Your task to perform on an android device: make emails show in primary in the gmail app Image 0: 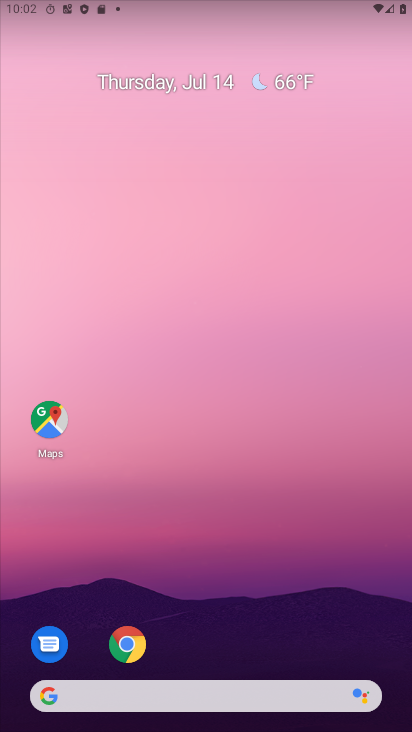
Step 0: drag from (249, 723) to (140, 93)
Your task to perform on an android device: make emails show in primary in the gmail app Image 1: 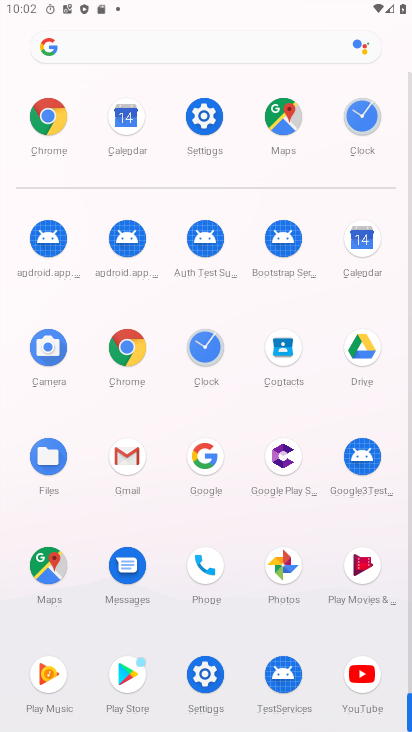
Step 1: click (124, 463)
Your task to perform on an android device: make emails show in primary in the gmail app Image 2: 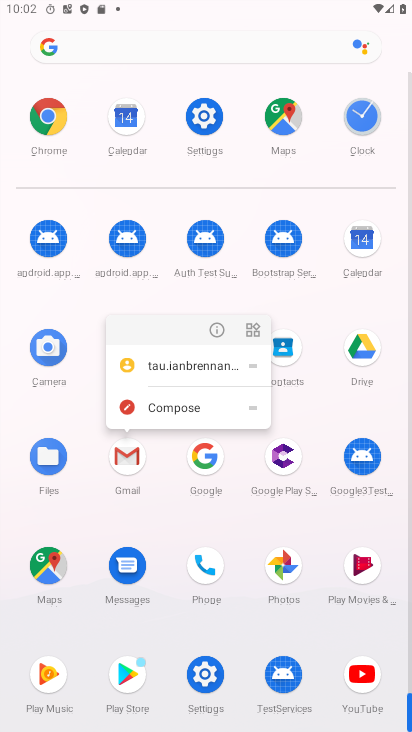
Step 2: click (134, 453)
Your task to perform on an android device: make emails show in primary in the gmail app Image 3: 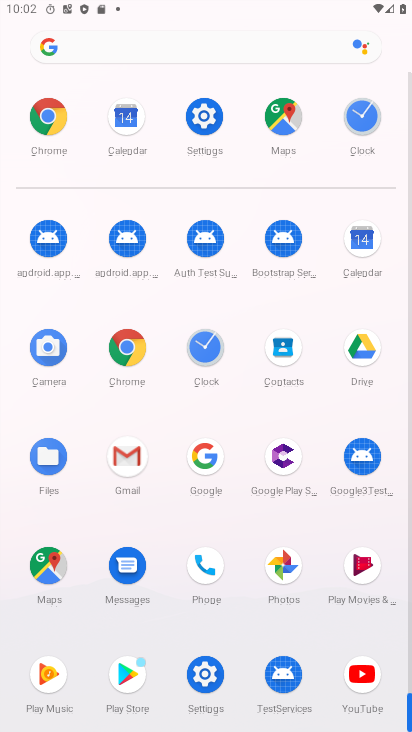
Step 3: click (134, 453)
Your task to perform on an android device: make emails show in primary in the gmail app Image 4: 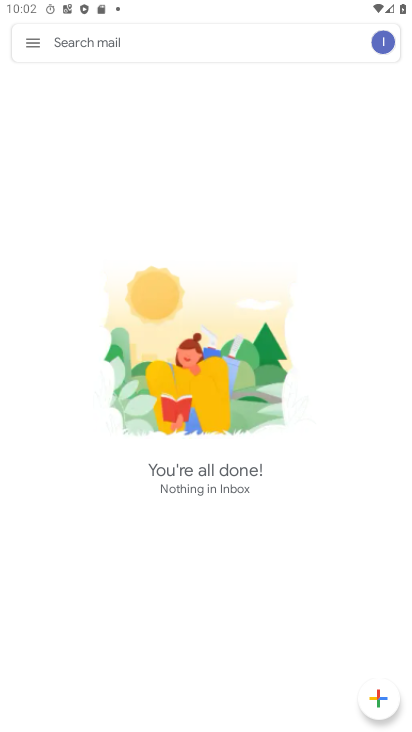
Step 4: click (26, 55)
Your task to perform on an android device: make emails show in primary in the gmail app Image 5: 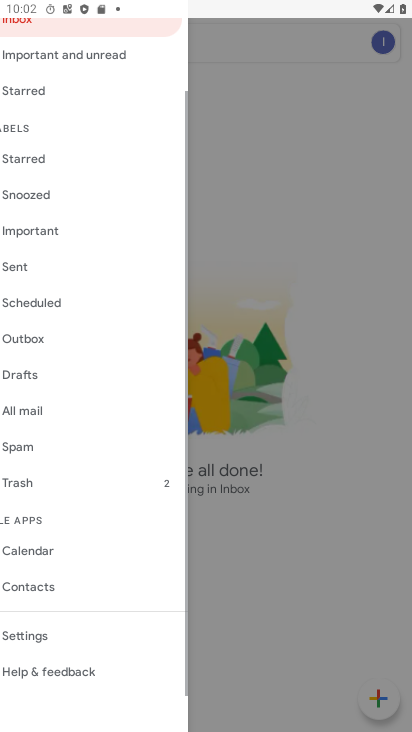
Step 5: drag from (37, 41) to (70, 408)
Your task to perform on an android device: make emails show in primary in the gmail app Image 6: 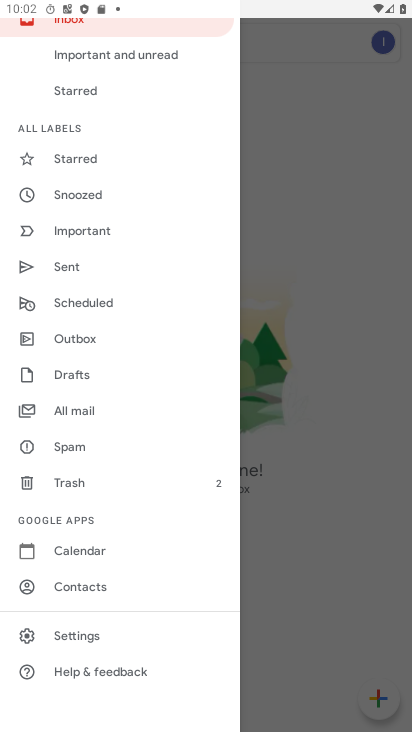
Step 6: click (75, 407)
Your task to perform on an android device: make emails show in primary in the gmail app Image 7: 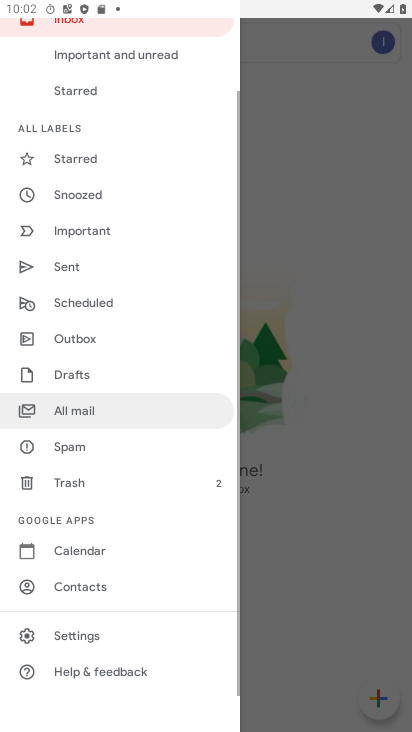
Step 7: click (76, 407)
Your task to perform on an android device: make emails show in primary in the gmail app Image 8: 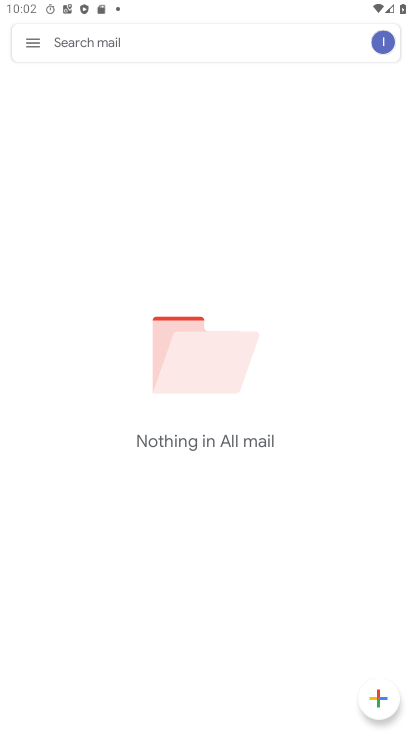
Step 8: click (34, 41)
Your task to perform on an android device: make emails show in primary in the gmail app Image 9: 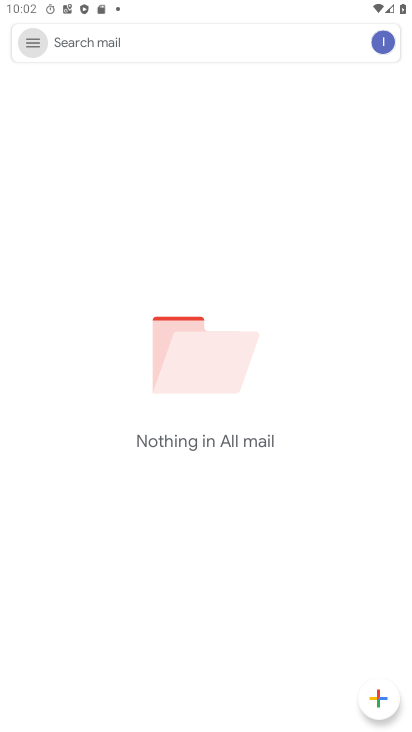
Step 9: click (33, 44)
Your task to perform on an android device: make emails show in primary in the gmail app Image 10: 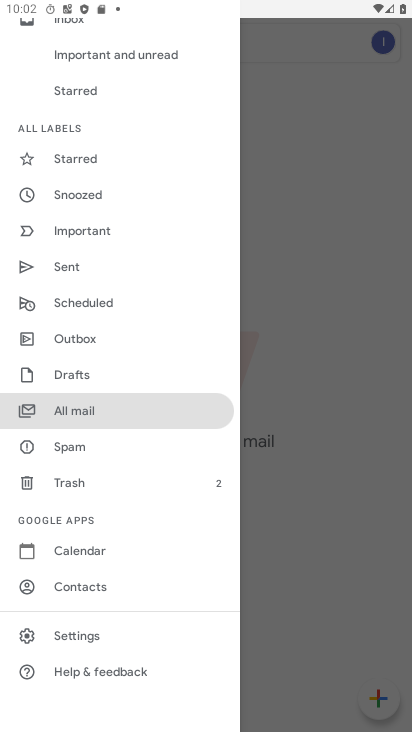
Step 10: click (74, 644)
Your task to perform on an android device: make emails show in primary in the gmail app Image 11: 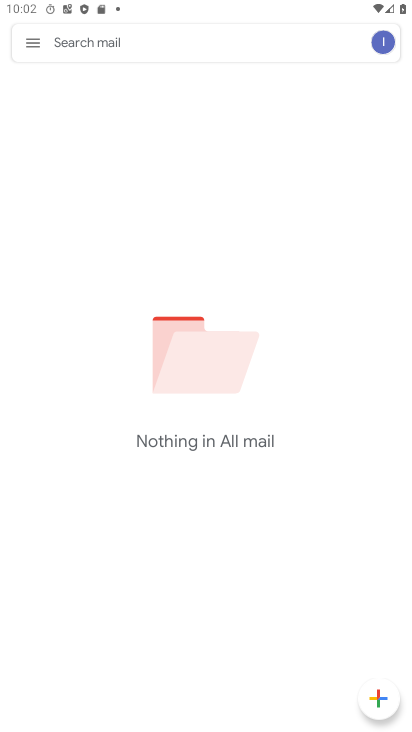
Step 11: click (73, 636)
Your task to perform on an android device: make emails show in primary in the gmail app Image 12: 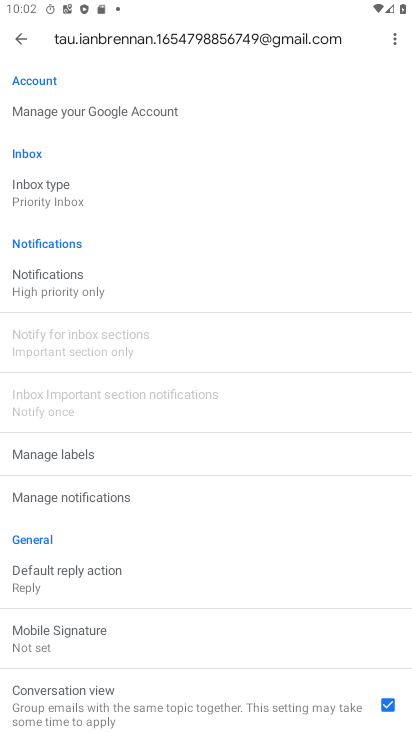
Step 12: click (45, 281)
Your task to perform on an android device: make emails show in primary in the gmail app Image 13: 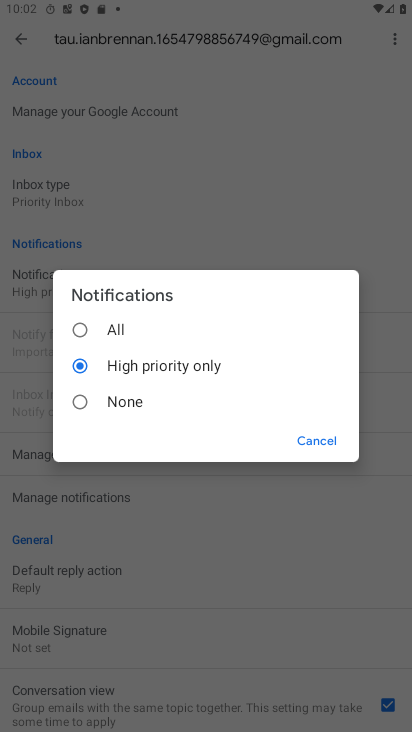
Step 13: click (324, 436)
Your task to perform on an android device: make emails show in primary in the gmail app Image 14: 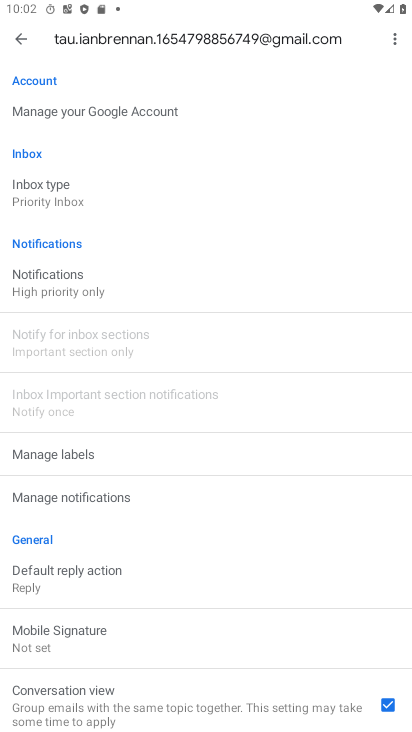
Step 14: click (44, 199)
Your task to perform on an android device: make emails show in primary in the gmail app Image 15: 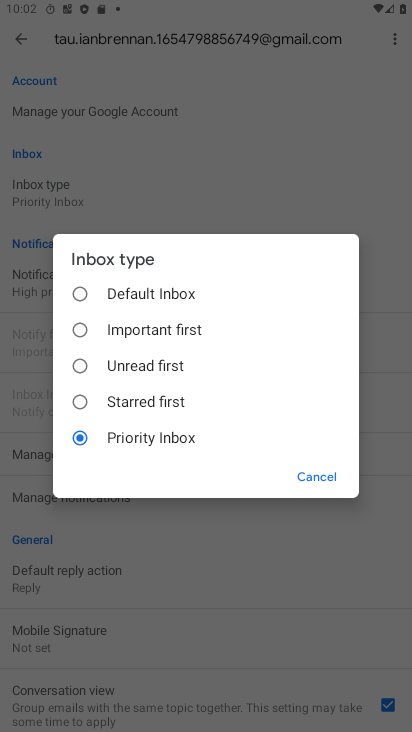
Step 15: click (76, 297)
Your task to perform on an android device: make emails show in primary in the gmail app Image 16: 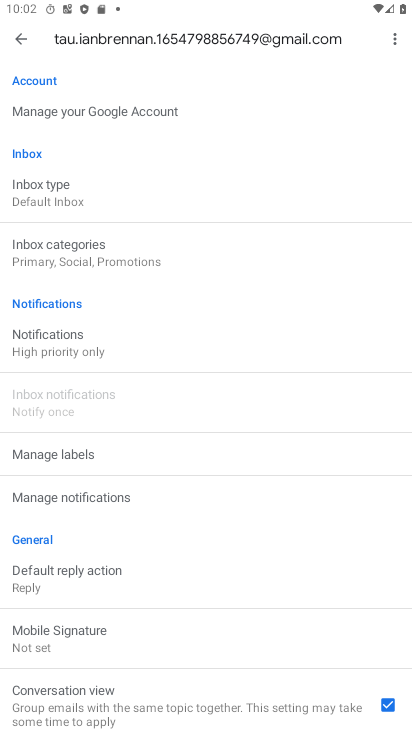
Step 16: task complete